Your task to perform on an android device: change the clock display to show seconds Image 0: 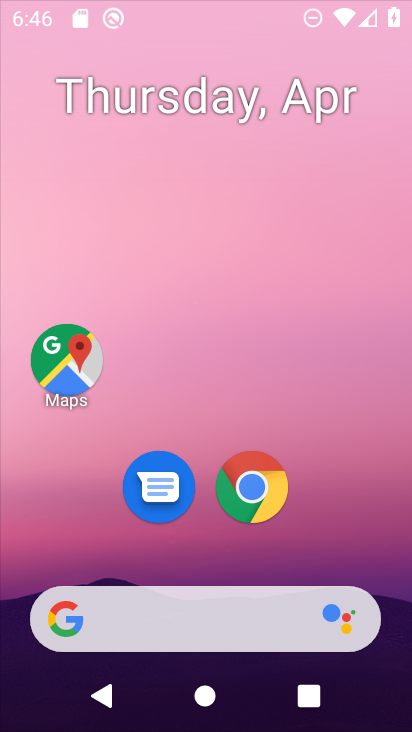
Step 0: click (301, 151)
Your task to perform on an android device: change the clock display to show seconds Image 1: 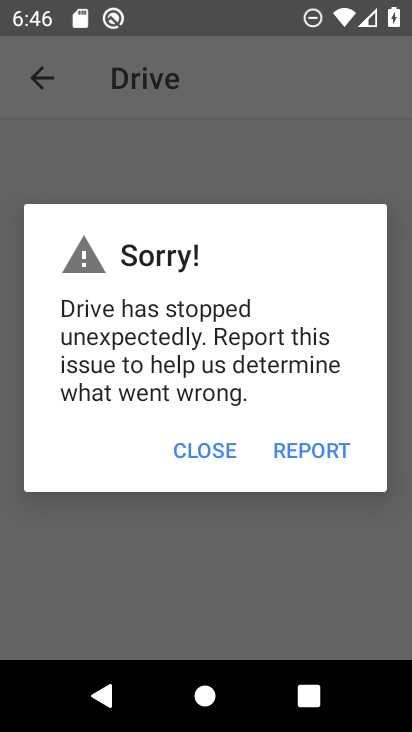
Step 1: click (187, 451)
Your task to perform on an android device: change the clock display to show seconds Image 2: 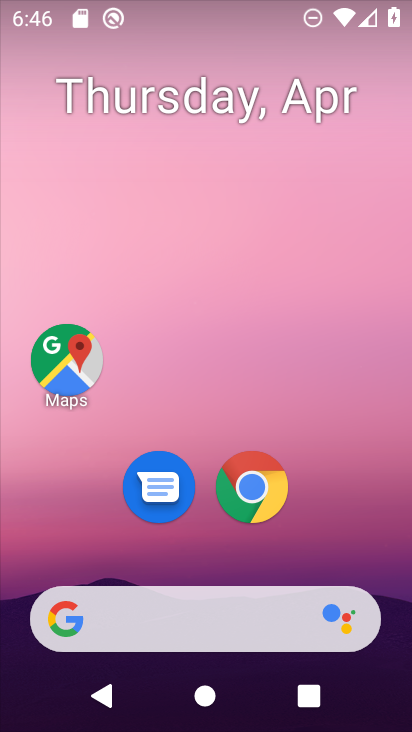
Step 2: drag from (332, 492) to (320, 48)
Your task to perform on an android device: change the clock display to show seconds Image 3: 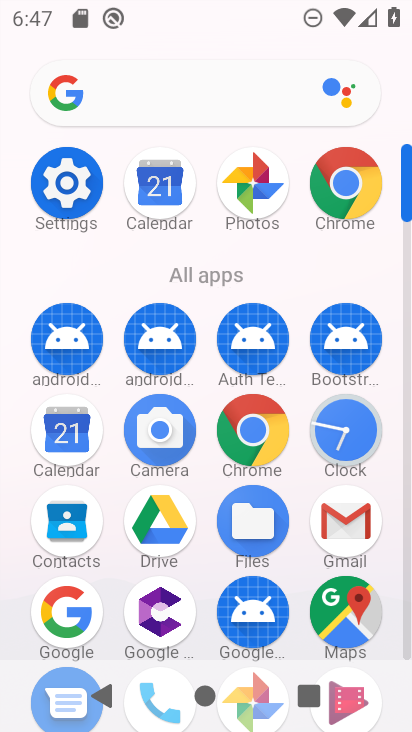
Step 3: click (373, 426)
Your task to perform on an android device: change the clock display to show seconds Image 4: 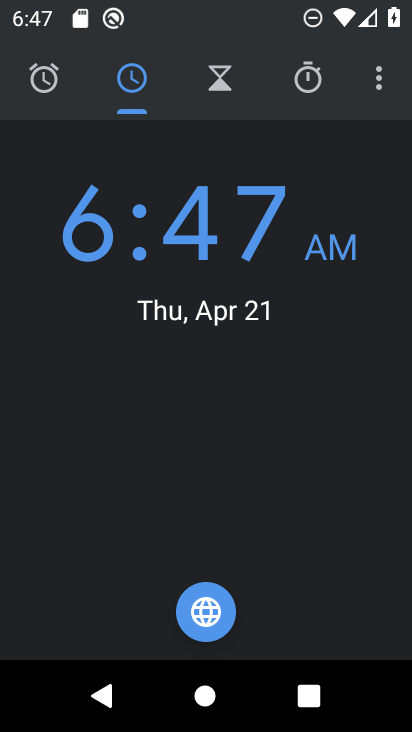
Step 4: click (369, 80)
Your task to perform on an android device: change the clock display to show seconds Image 5: 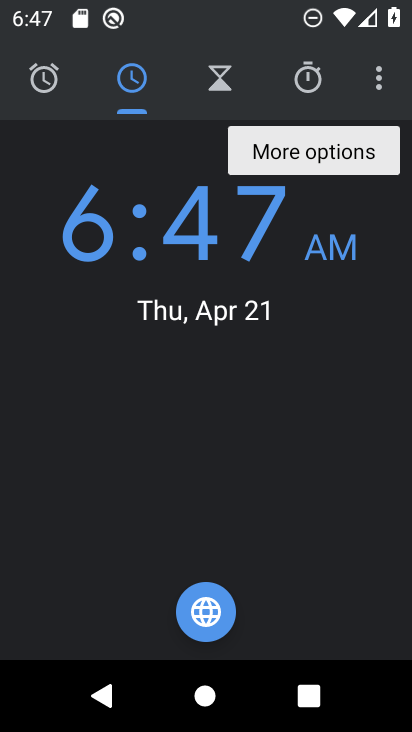
Step 5: click (381, 77)
Your task to perform on an android device: change the clock display to show seconds Image 6: 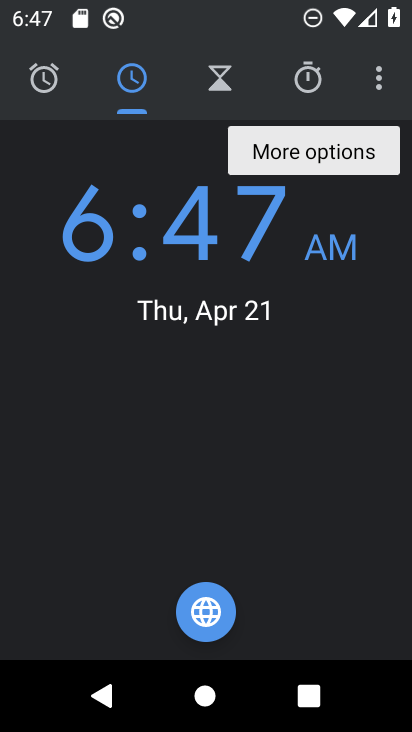
Step 6: click (381, 75)
Your task to perform on an android device: change the clock display to show seconds Image 7: 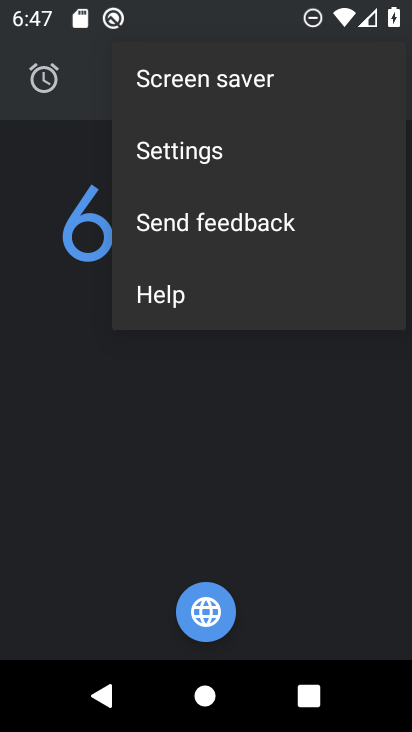
Step 7: click (205, 158)
Your task to perform on an android device: change the clock display to show seconds Image 8: 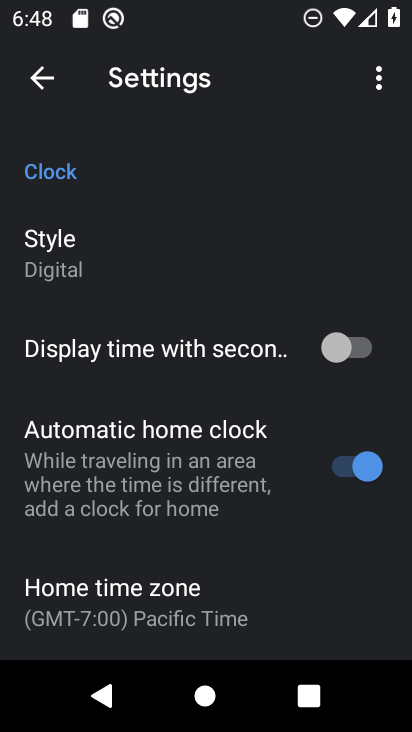
Step 8: click (80, 345)
Your task to perform on an android device: change the clock display to show seconds Image 9: 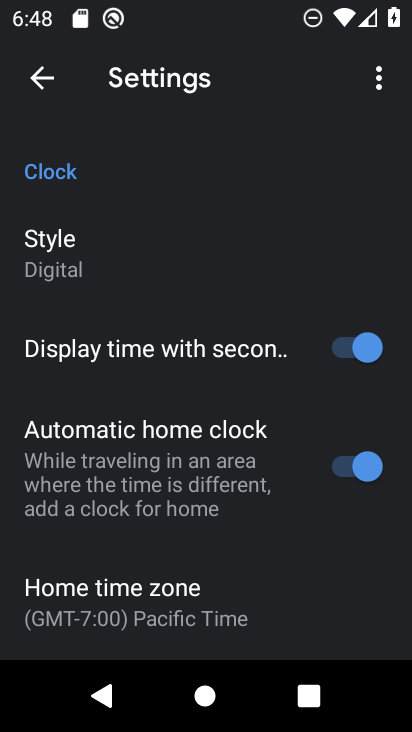
Step 9: task complete